Your task to perform on an android device: open device folders in google photos Image 0: 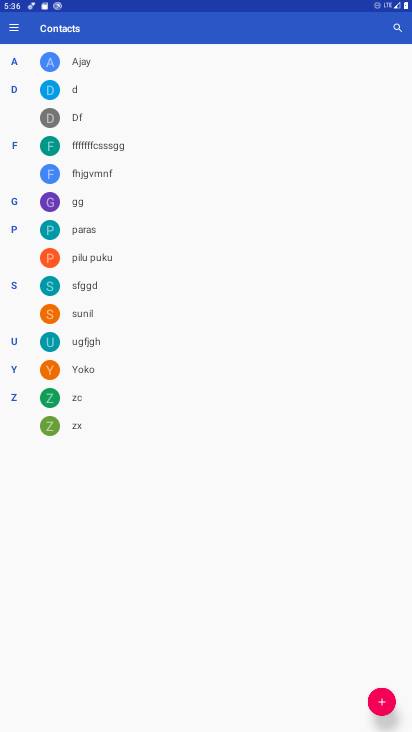
Step 0: press home button
Your task to perform on an android device: open device folders in google photos Image 1: 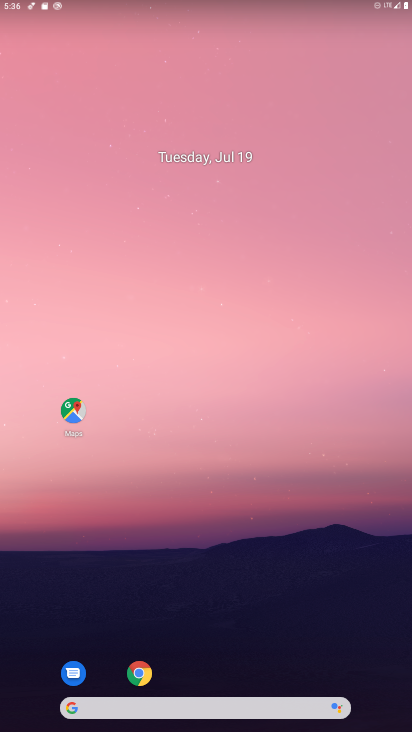
Step 1: drag from (225, 684) to (219, 37)
Your task to perform on an android device: open device folders in google photos Image 2: 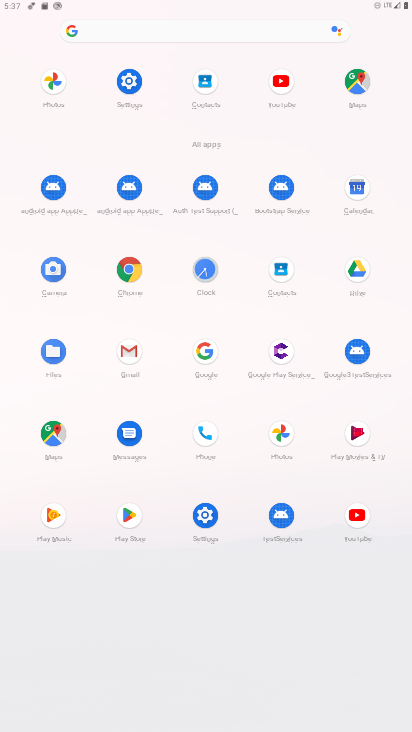
Step 2: click (276, 428)
Your task to perform on an android device: open device folders in google photos Image 3: 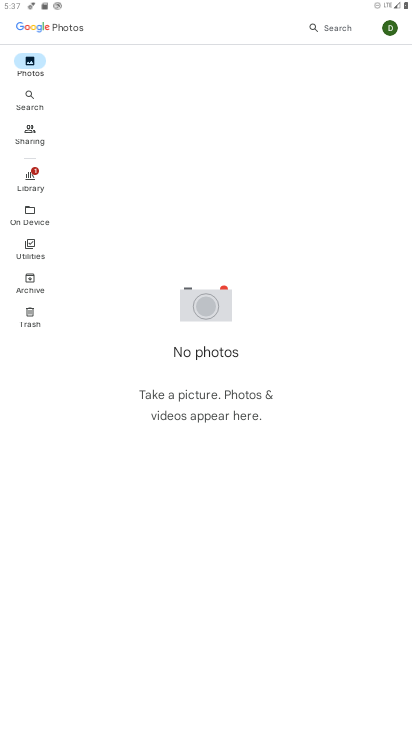
Step 3: click (23, 93)
Your task to perform on an android device: open device folders in google photos Image 4: 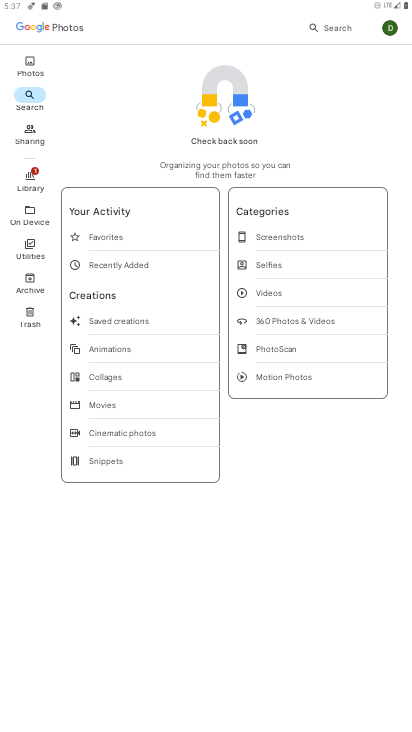
Step 4: click (310, 28)
Your task to perform on an android device: open device folders in google photos Image 5: 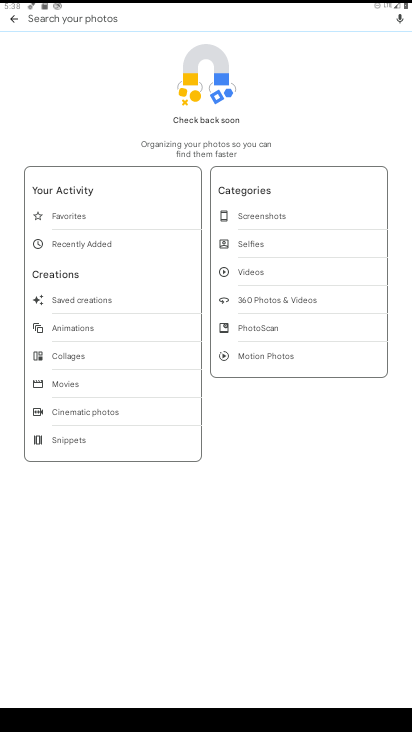
Step 5: type "device"
Your task to perform on an android device: open device folders in google photos Image 6: 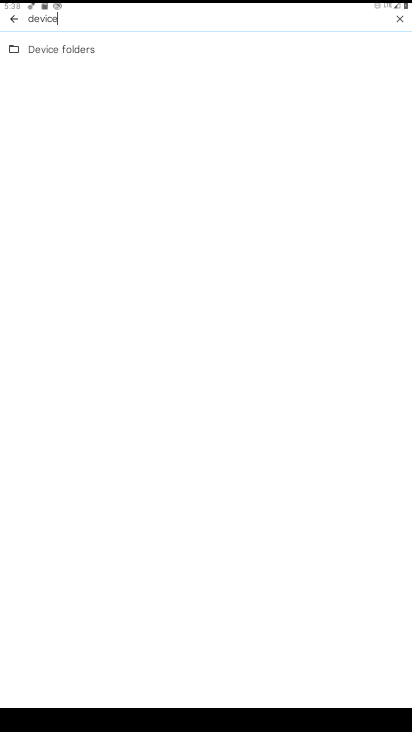
Step 6: click (60, 51)
Your task to perform on an android device: open device folders in google photos Image 7: 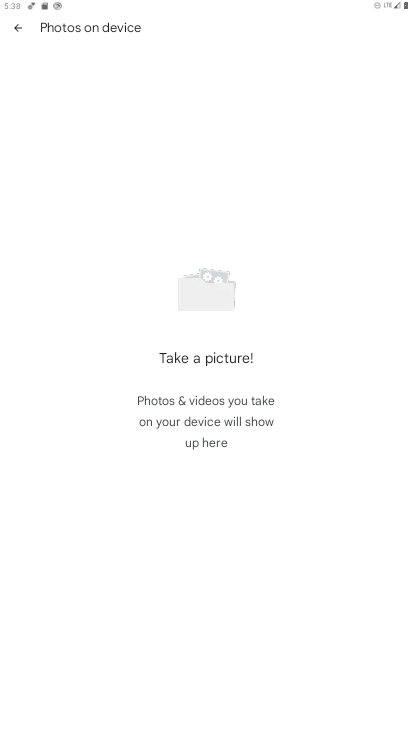
Step 7: task complete